Your task to perform on an android device: See recent photos Image 0: 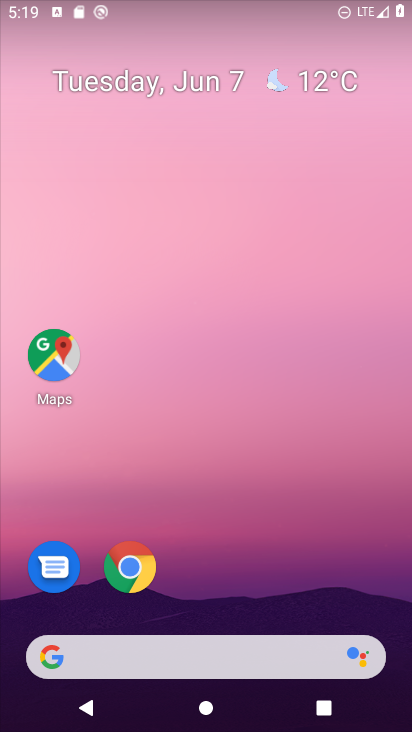
Step 0: drag from (302, 653) to (292, 27)
Your task to perform on an android device: See recent photos Image 1: 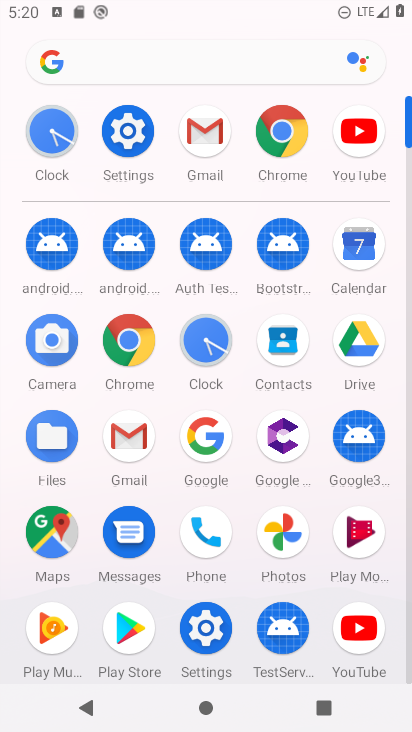
Step 1: click (273, 530)
Your task to perform on an android device: See recent photos Image 2: 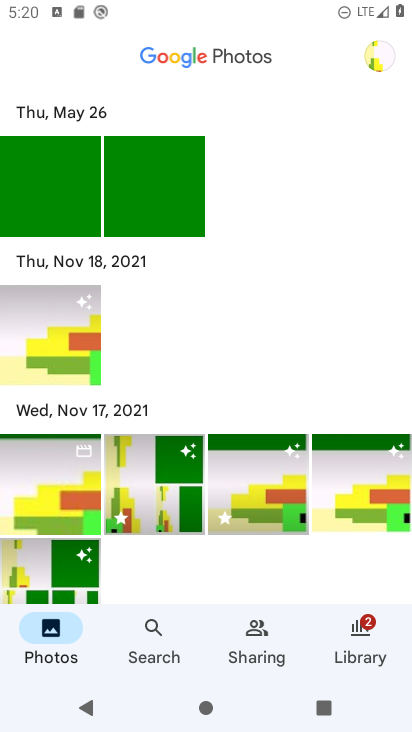
Step 2: task complete